Your task to perform on an android device: Clear all items from cart on newegg.com. Add logitech g933 to the cart on newegg.com, then select checkout. Image 0: 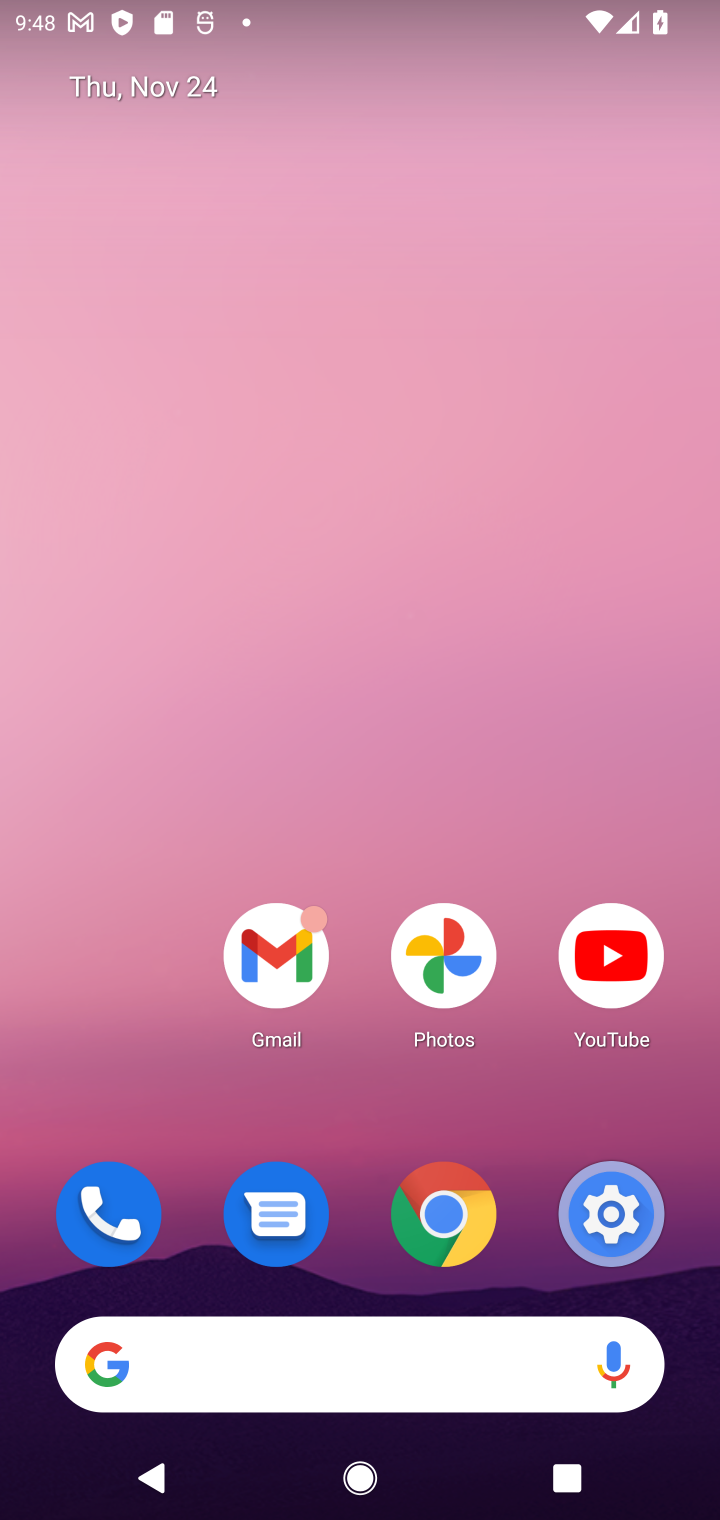
Step 0: click (421, 1384)
Your task to perform on an android device: Clear all items from cart on newegg.com. Add logitech g933 to the cart on newegg.com, then select checkout. Image 1: 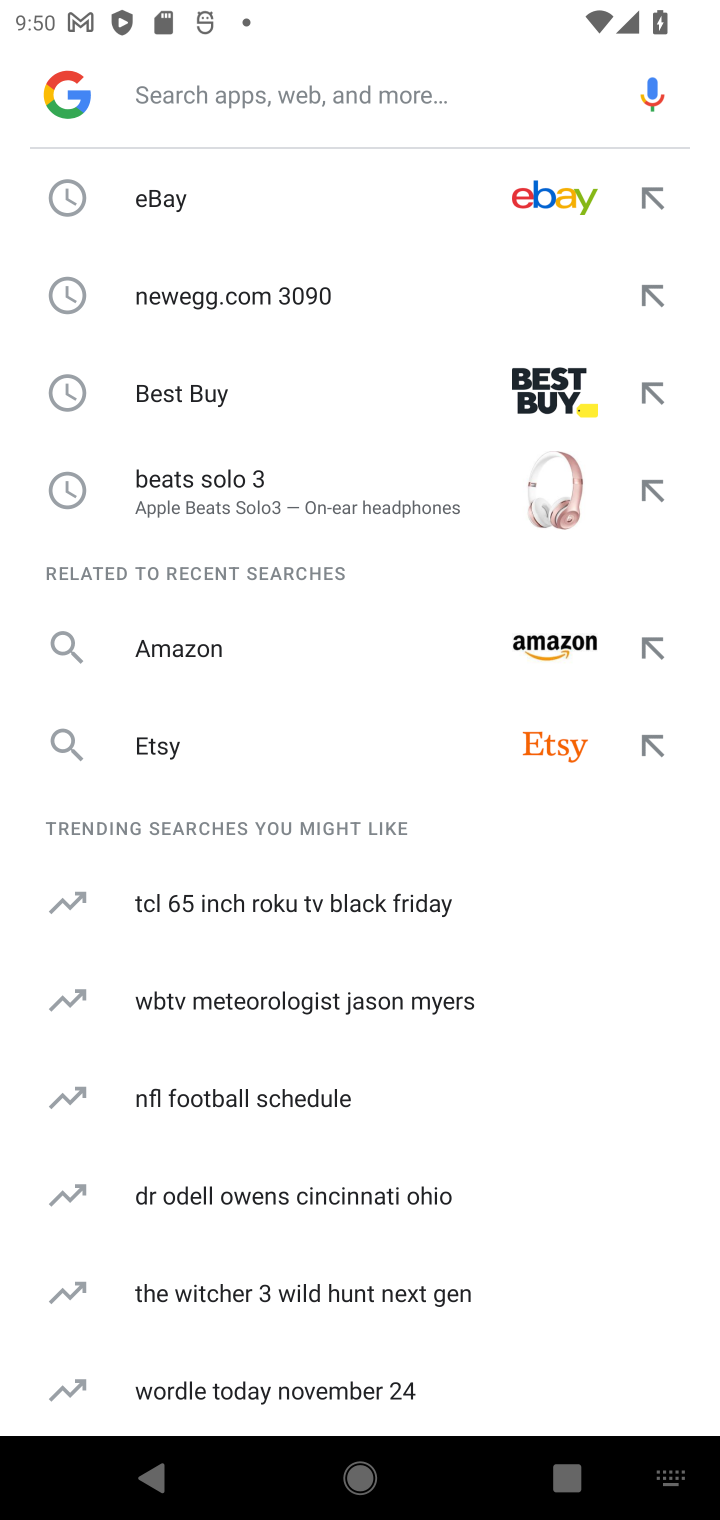
Step 1: type "newegg"
Your task to perform on an android device: Clear all items from cart on newegg.com. Add logitech g933 to the cart on newegg.com, then select checkout. Image 2: 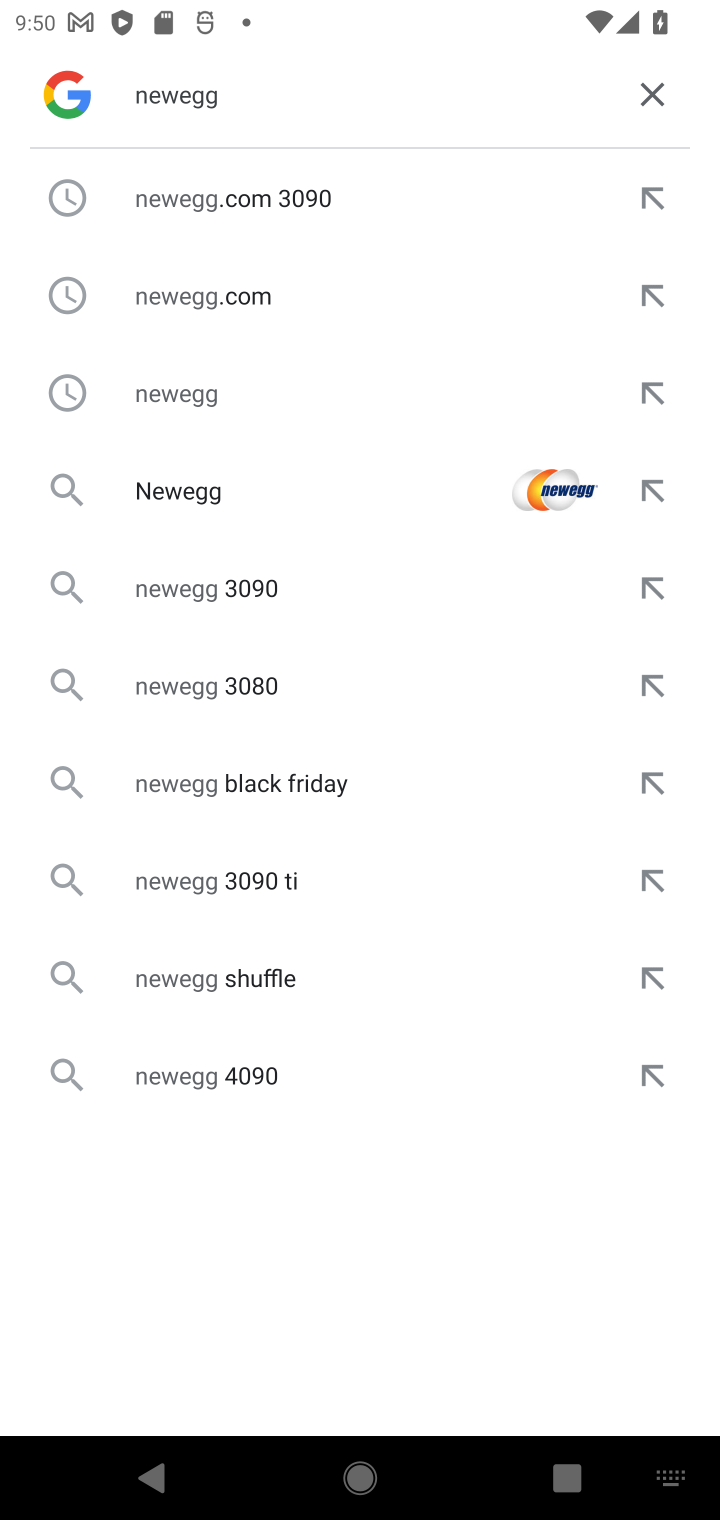
Step 2: click (317, 228)
Your task to perform on an android device: Clear all items from cart on newegg.com. Add logitech g933 to the cart on newegg.com, then select checkout. Image 3: 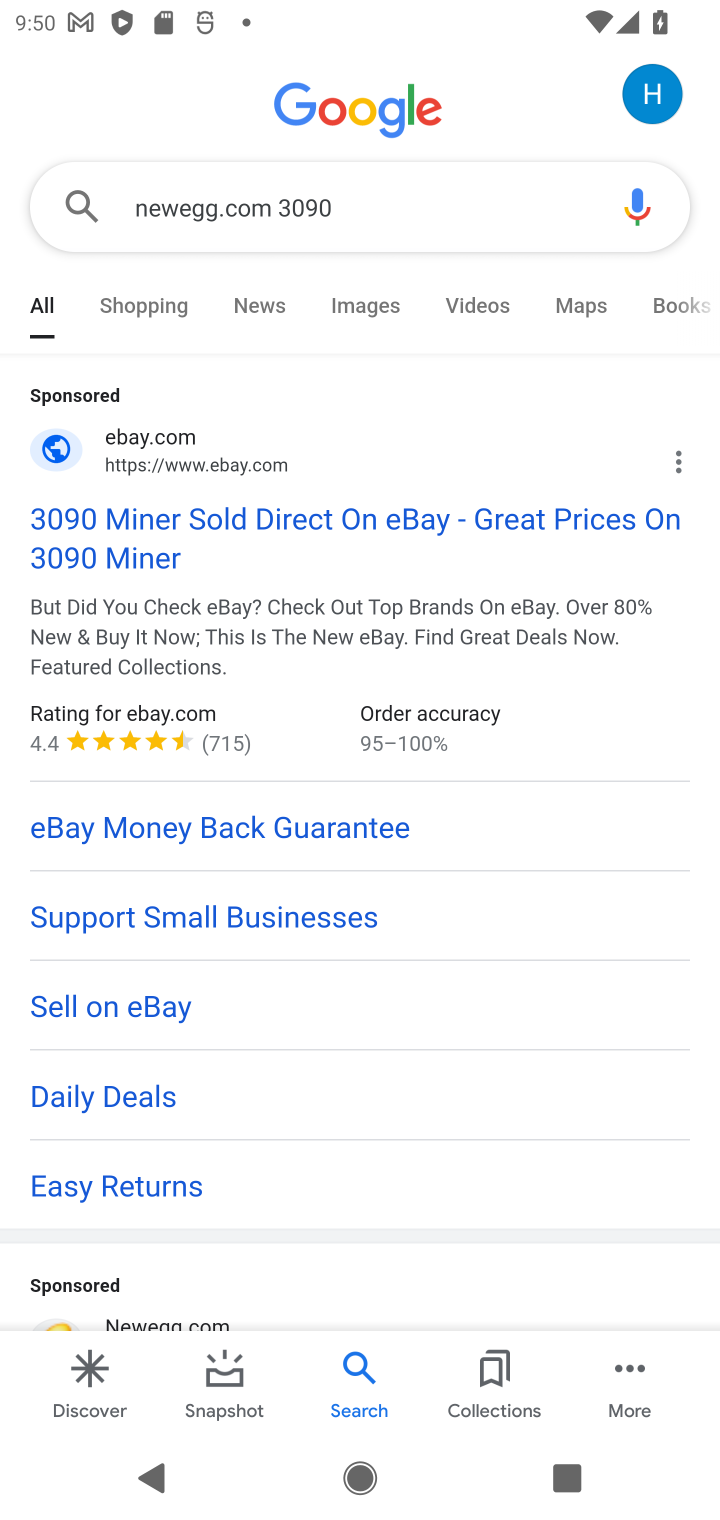
Step 3: click (255, 523)
Your task to perform on an android device: Clear all items from cart on newegg.com. Add logitech g933 to the cart on newegg.com, then select checkout. Image 4: 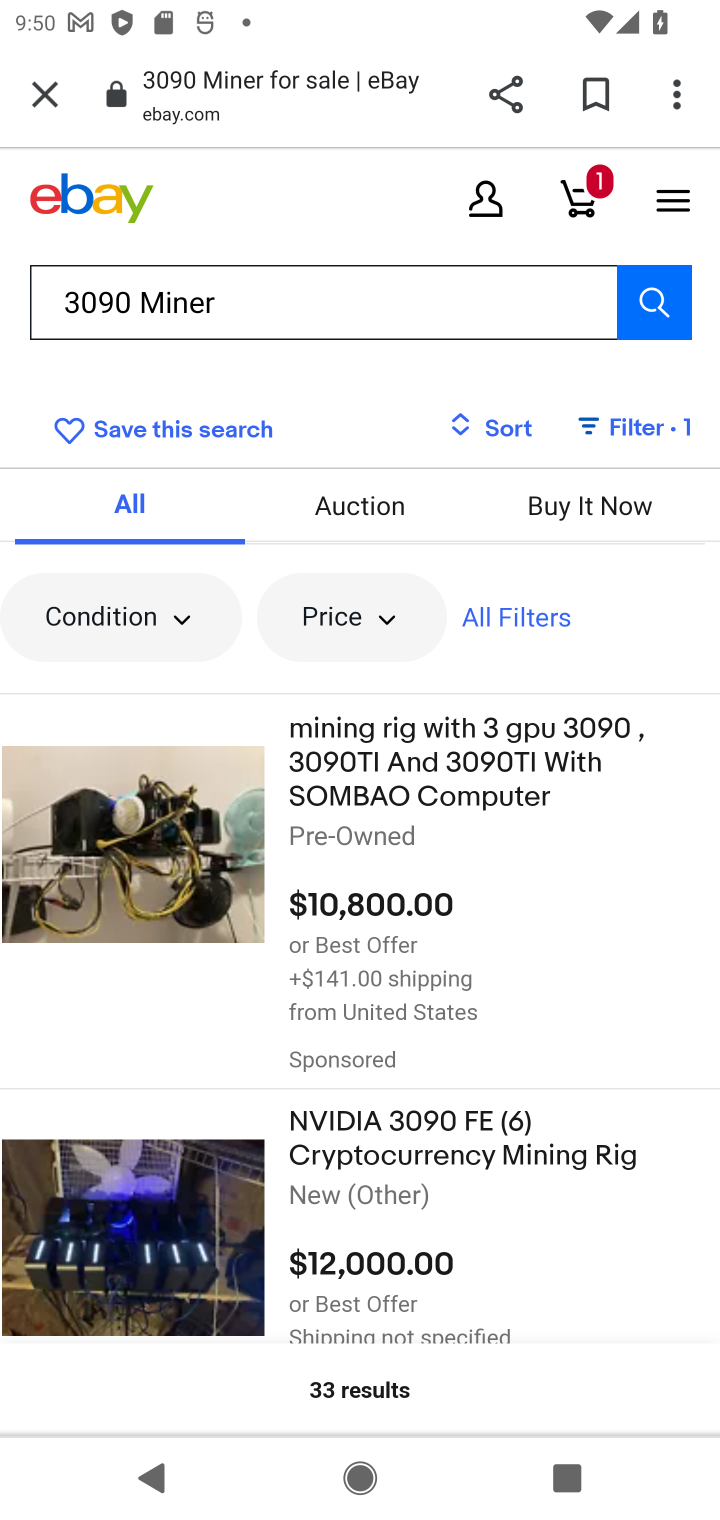
Step 4: task complete